Your task to perform on an android device: toggle notification dots Image 0: 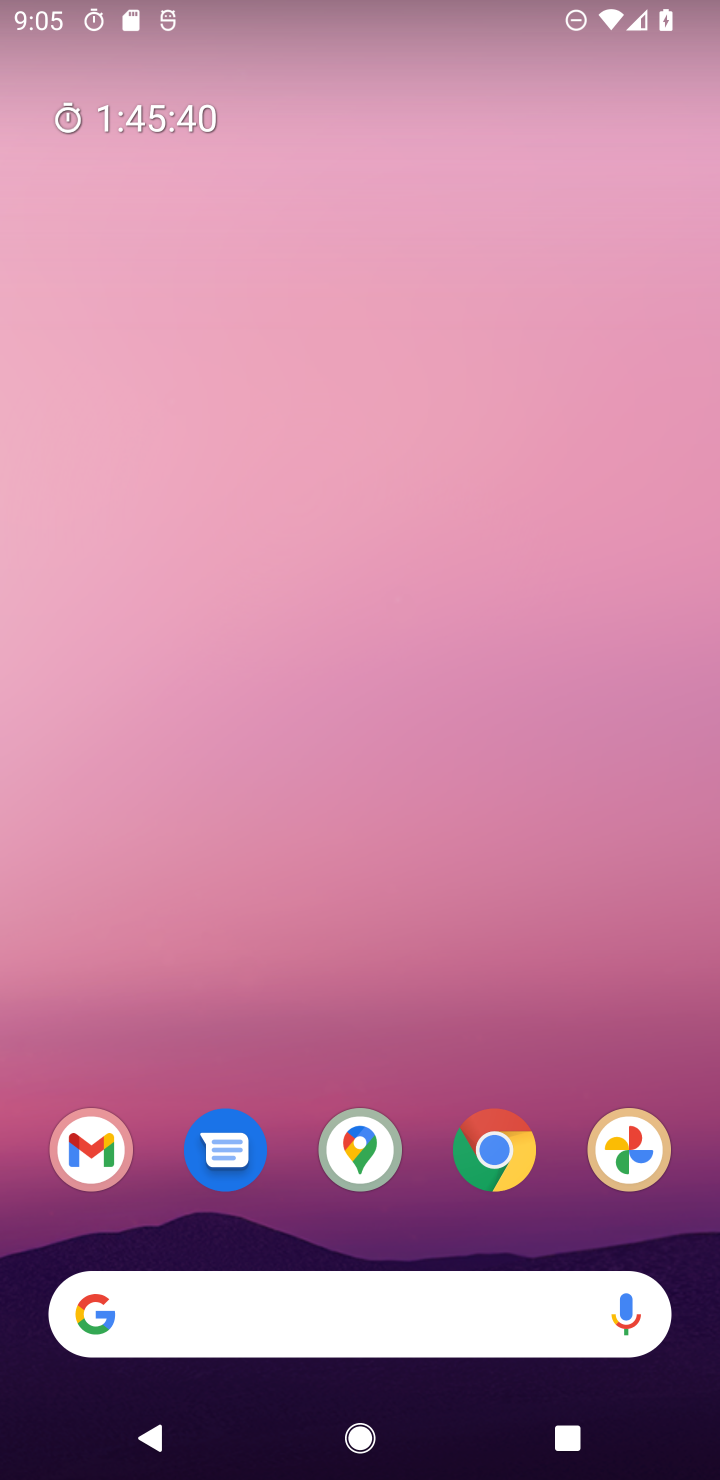
Step 0: drag from (385, 1310) to (629, 33)
Your task to perform on an android device: toggle notification dots Image 1: 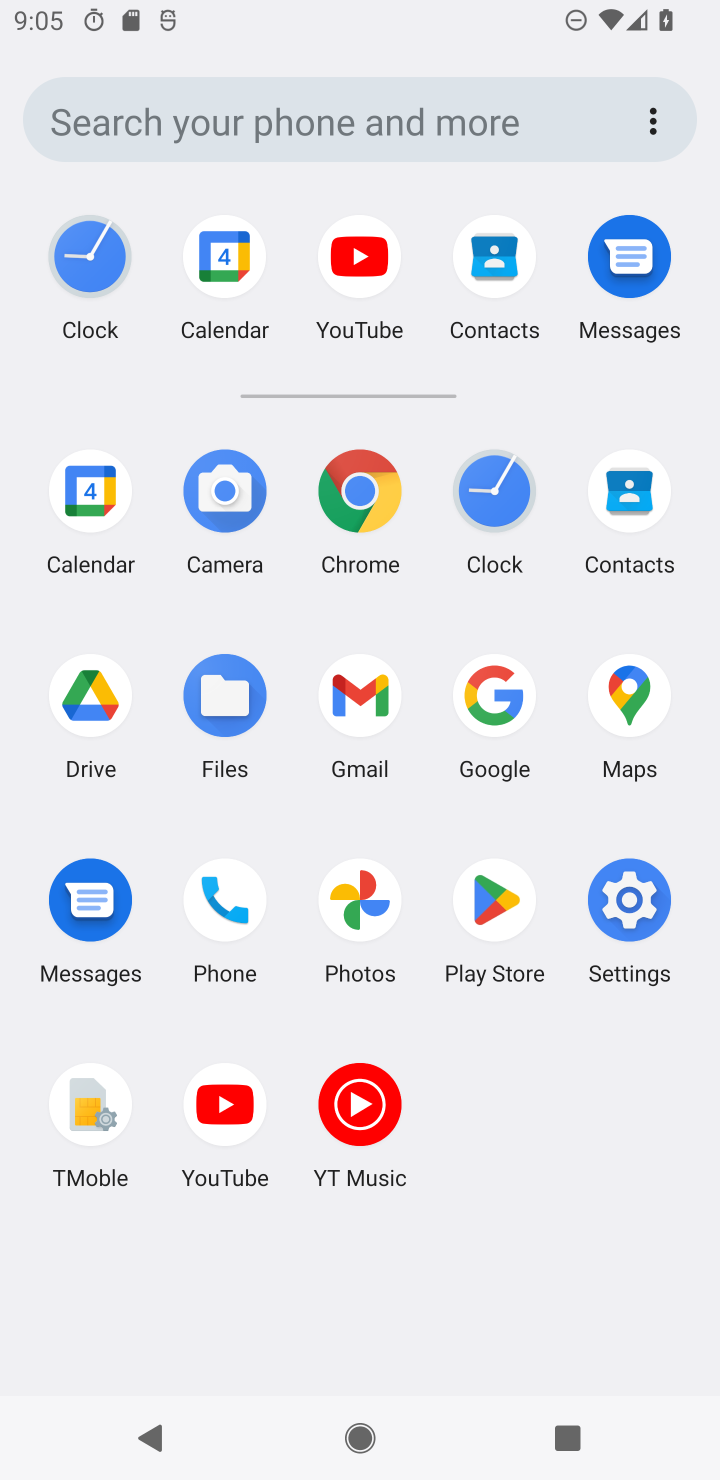
Step 1: click (623, 875)
Your task to perform on an android device: toggle notification dots Image 2: 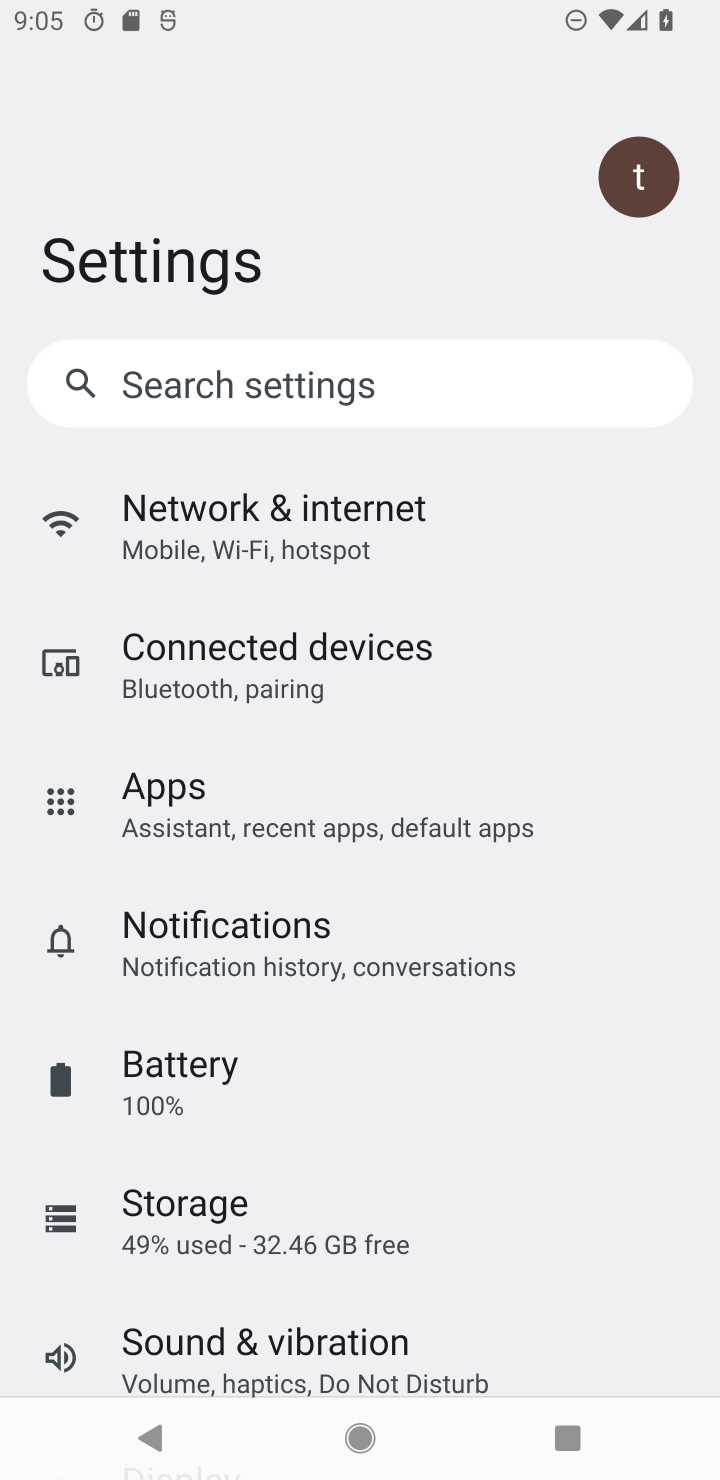
Step 2: click (454, 927)
Your task to perform on an android device: toggle notification dots Image 3: 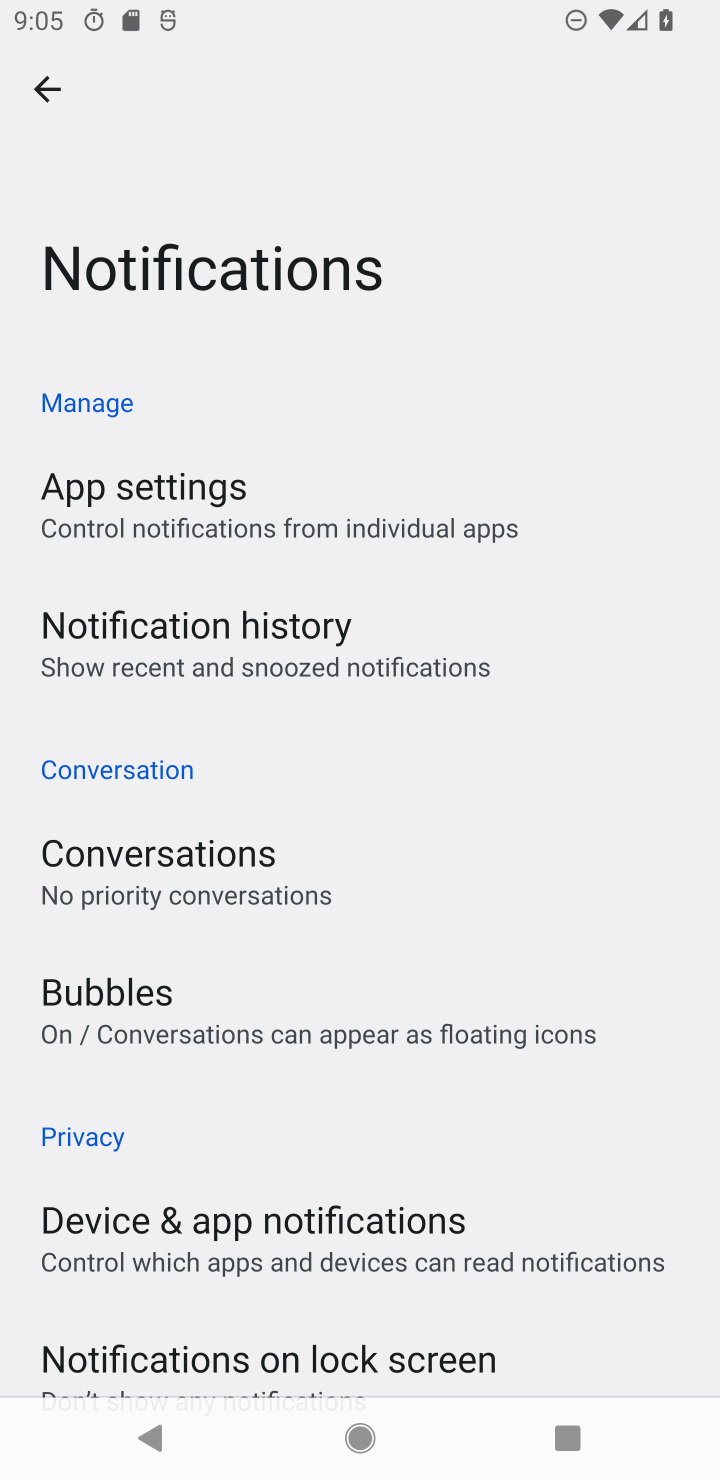
Step 3: drag from (343, 1229) to (568, 15)
Your task to perform on an android device: toggle notification dots Image 4: 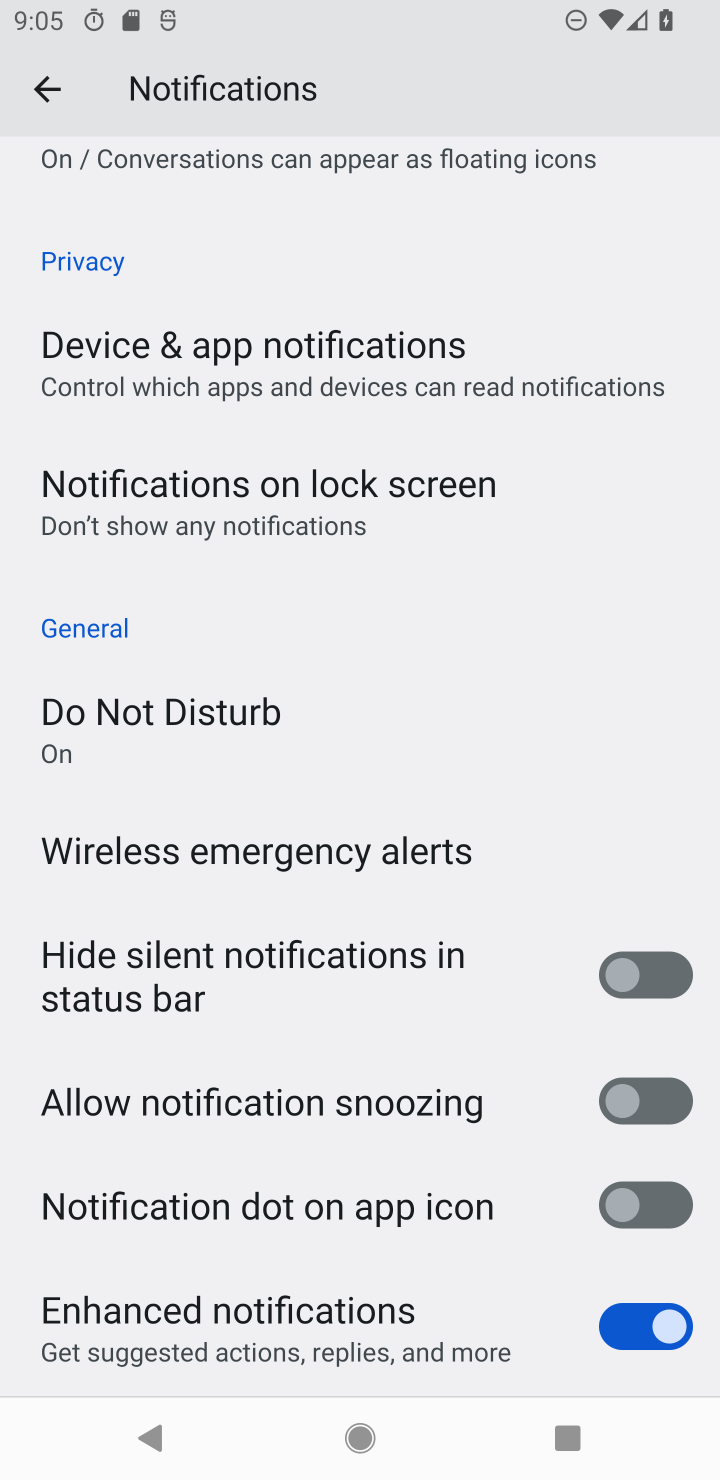
Step 4: click (658, 1201)
Your task to perform on an android device: toggle notification dots Image 5: 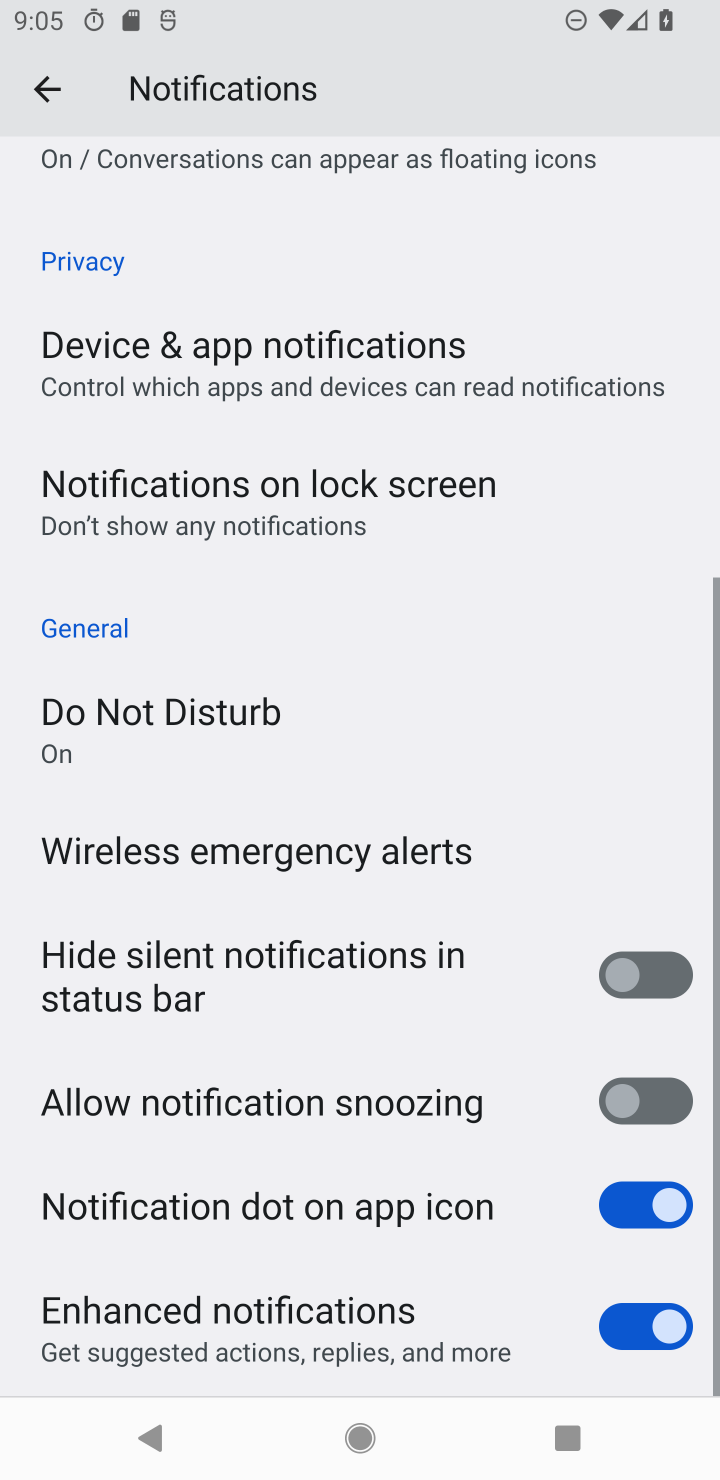
Step 5: task complete